Your task to perform on an android device: Open the map Image 0: 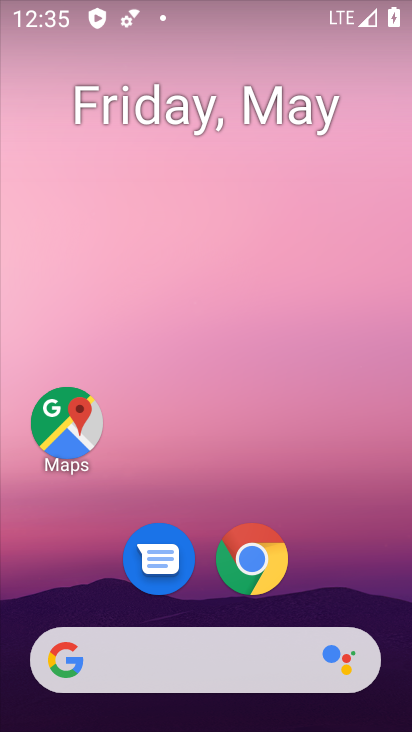
Step 0: click (76, 425)
Your task to perform on an android device: Open the map Image 1: 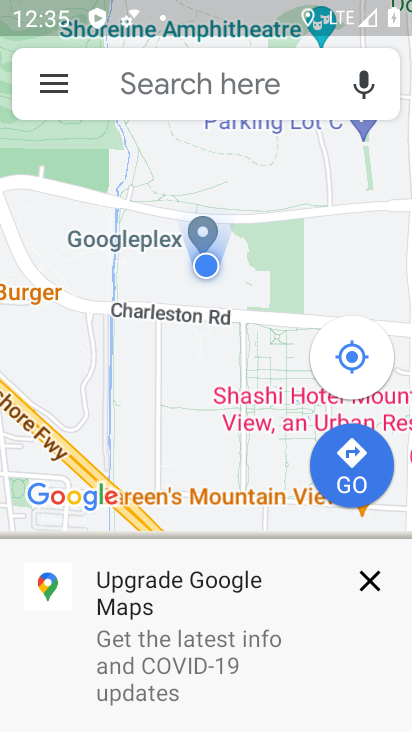
Step 1: task complete